Your task to perform on an android device: Search for "razer blade" on walmart, select the first entry, add it to the cart, then select checkout. Image 0: 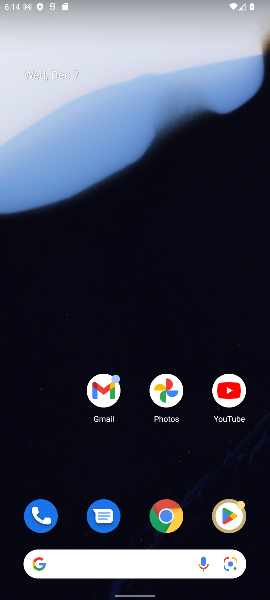
Step 0: click (142, 566)
Your task to perform on an android device: Search for "razer blade" on walmart, select the first entry, add it to the cart, then select checkout. Image 1: 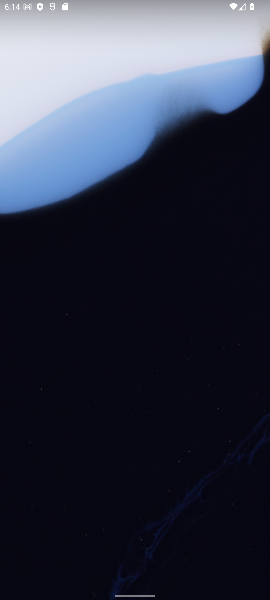
Step 1: type ""
Your task to perform on an android device: Search for "razer blade" on walmart, select the first entry, add it to the cart, then select checkout. Image 2: 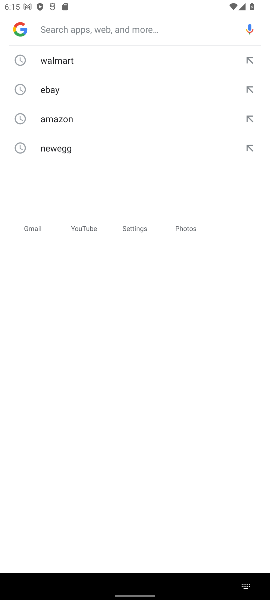
Step 2: click (94, 65)
Your task to perform on an android device: Search for "razer blade" on walmart, select the first entry, add it to the cart, then select checkout. Image 3: 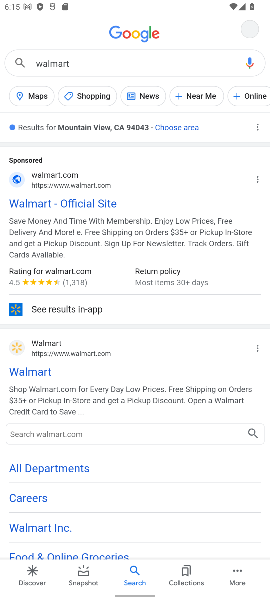
Step 3: click (58, 209)
Your task to perform on an android device: Search for "razer blade" on walmart, select the first entry, add it to the cart, then select checkout. Image 4: 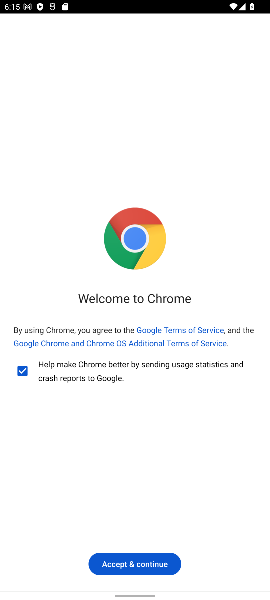
Step 4: click (148, 569)
Your task to perform on an android device: Search for "razer blade" on walmart, select the first entry, add it to the cart, then select checkout. Image 5: 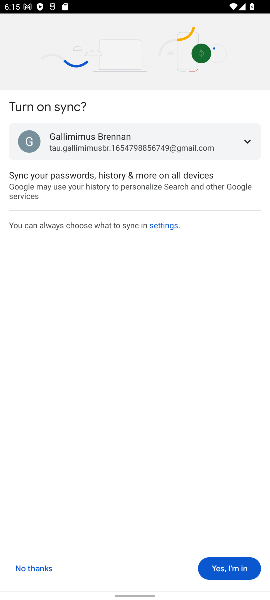
Step 5: click (212, 569)
Your task to perform on an android device: Search for "razer blade" on walmart, select the first entry, add it to the cart, then select checkout. Image 6: 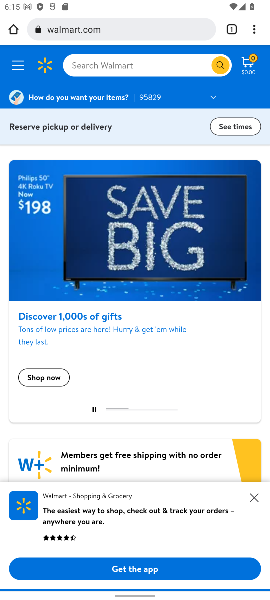
Step 6: click (130, 71)
Your task to perform on an android device: Search for "razer blade" on walmart, select the first entry, add it to the cart, then select checkout. Image 7: 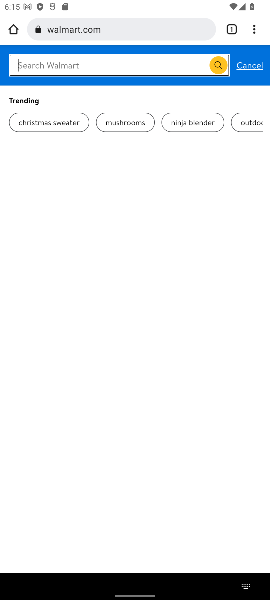
Step 7: type "razer blade"
Your task to perform on an android device: Search for "razer blade" on walmart, select the first entry, add it to the cart, then select checkout. Image 8: 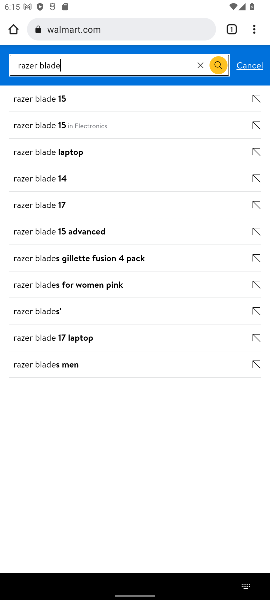
Step 8: click (27, 104)
Your task to perform on an android device: Search for "razer blade" on walmart, select the first entry, add it to the cart, then select checkout. Image 9: 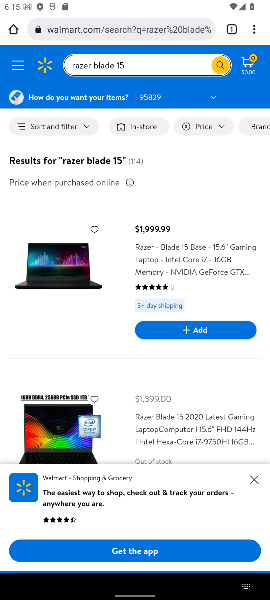
Step 9: click (165, 325)
Your task to perform on an android device: Search for "razer blade" on walmart, select the first entry, add it to the cart, then select checkout. Image 10: 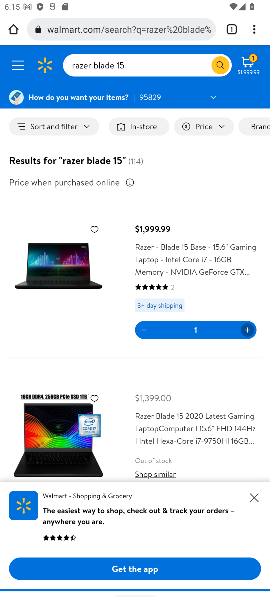
Step 10: task complete